Your task to perform on an android device: turn off improve location accuracy Image 0: 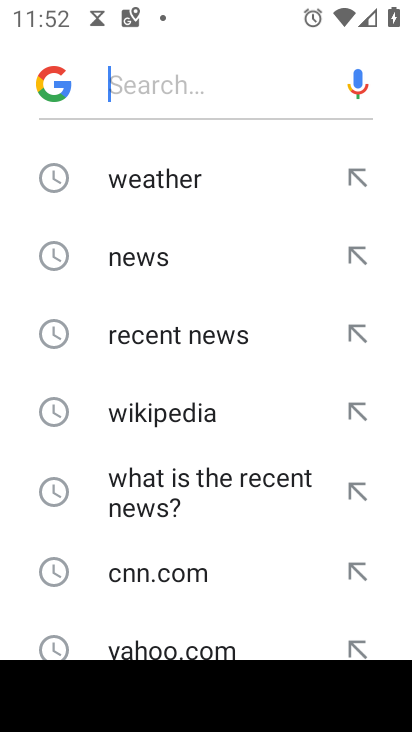
Step 0: press home button
Your task to perform on an android device: turn off improve location accuracy Image 1: 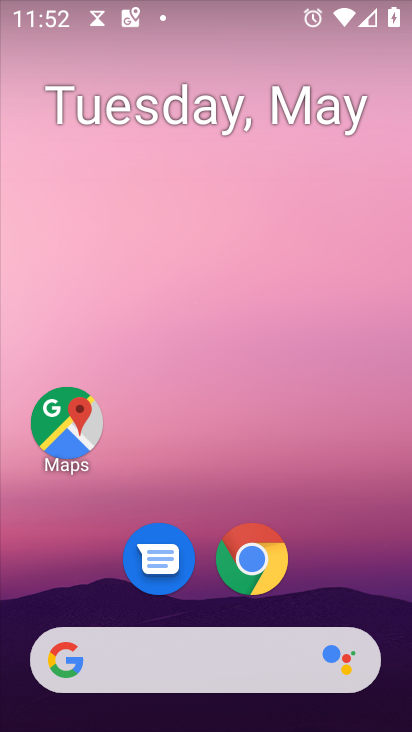
Step 1: drag from (347, 527) to (378, 8)
Your task to perform on an android device: turn off improve location accuracy Image 2: 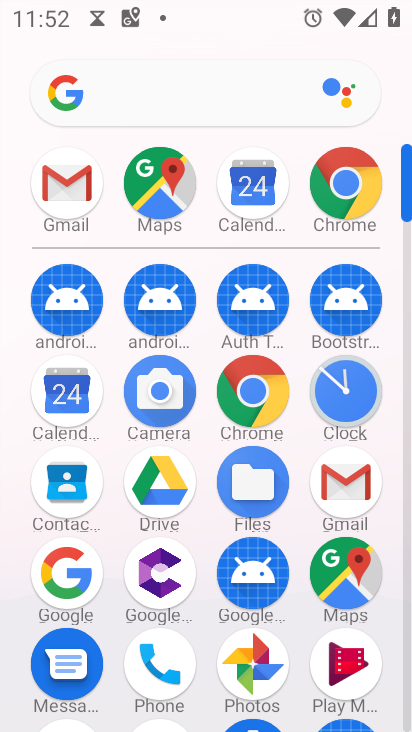
Step 2: drag from (387, 642) to (374, 125)
Your task to perform on an android device: turn off improve location accuracy Image 3: 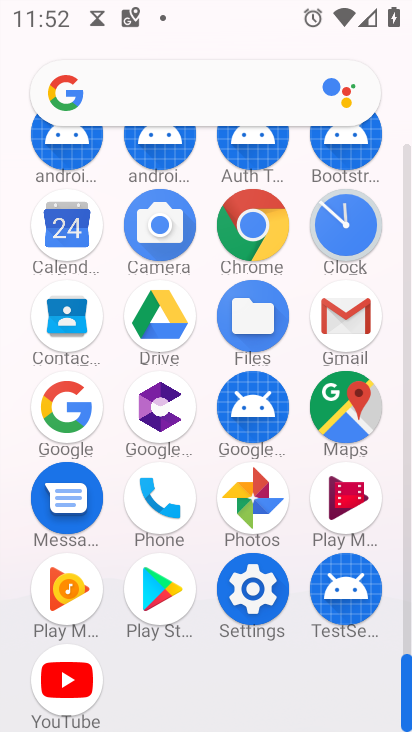
Step 3: click (269, 610)
Your task to perform on an android device: turn off improve location accuracy Image 4: 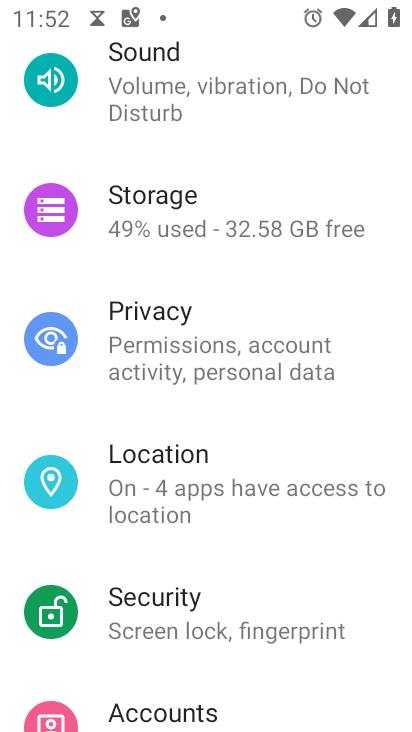
Step 4: click (208, 462)
Your task to perform on an android device: turn off improve location accuracy Image 5: 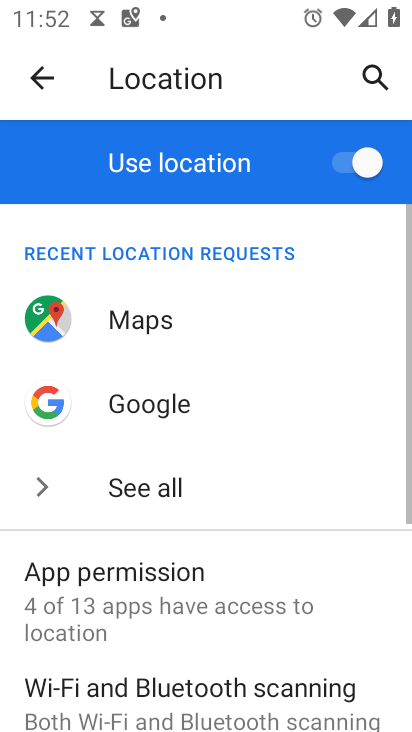
Step 5: drag from (282, 615) to (296, 179)
Your task to perform on an android device: turn off improve location accuracy Image 6: 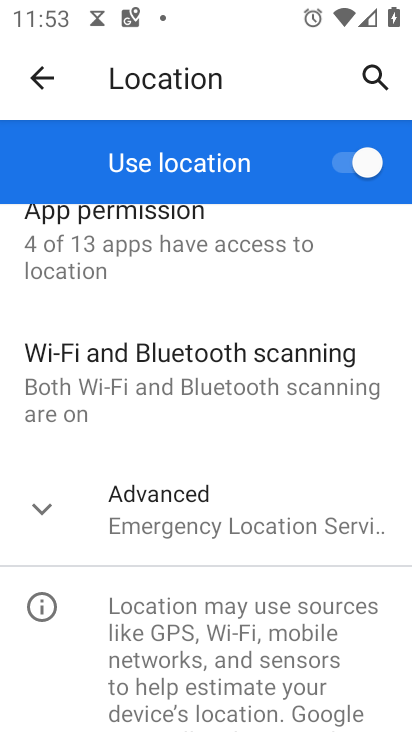
Step 6: drag from (288, 604) to (315, 215)
Your task to perform on an android device: turn off improve location accuracy Image 7: 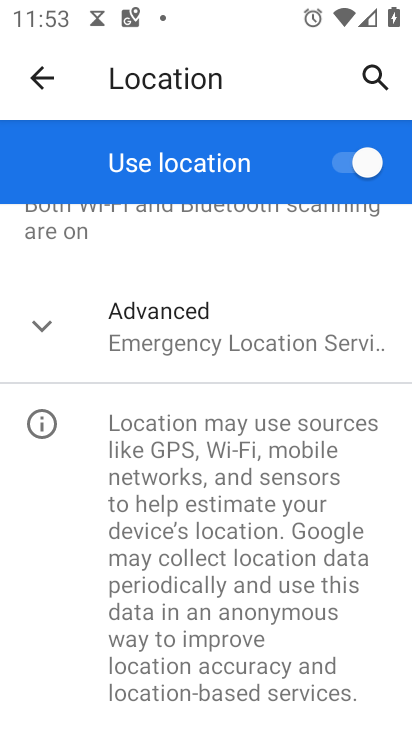
Step 7: click (195, 341)
Your task to perform on an android device: turn off improve location accuracy Image 8: 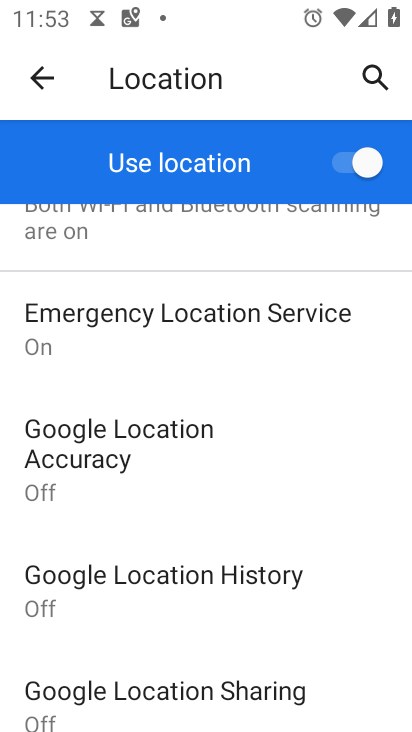
Step 8: click (110, 446)
Your task to perform on an android device: turn off improve location accuracy Image 9: 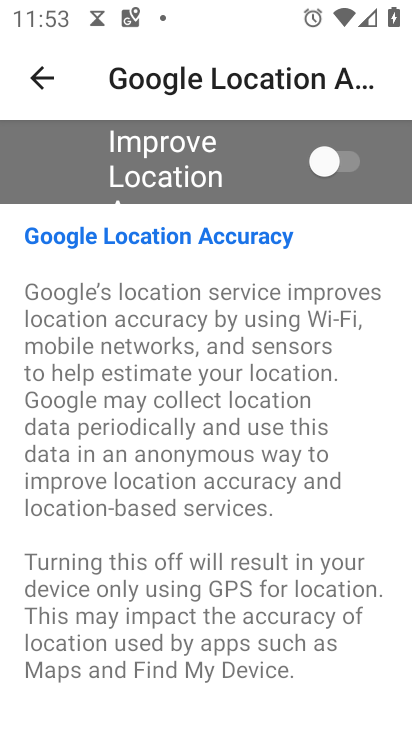
Step 9: task complete